Your task to perform on an android device: Open the stopwatch Image 0: 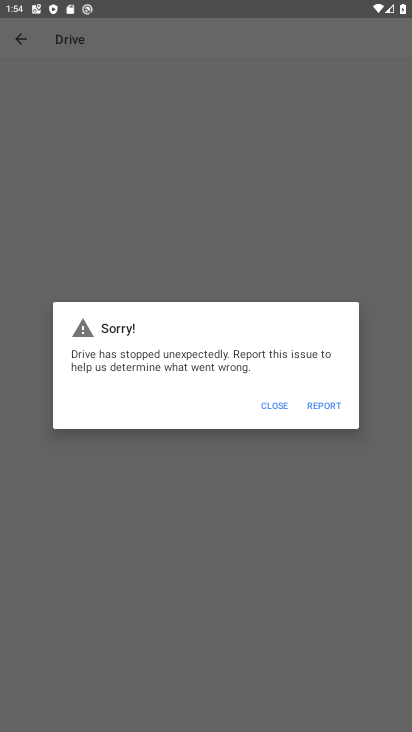
Step 0: press home button
Your task to perform on an android device: Open the stopwatch Image 1: 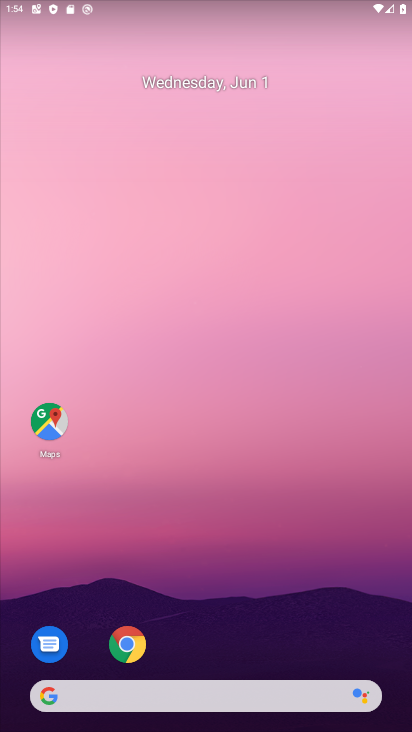
Step 1: drag from (198, 642) to (212, 210)
Your task to perform on an android device: Open the stopwatch Image 2: 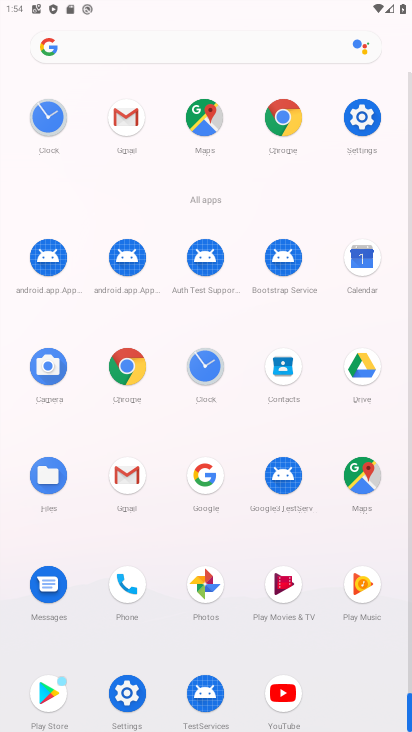
Step 2: click (204, 367)
Your task to perform on an android device: Open the stopwatch Image 3: 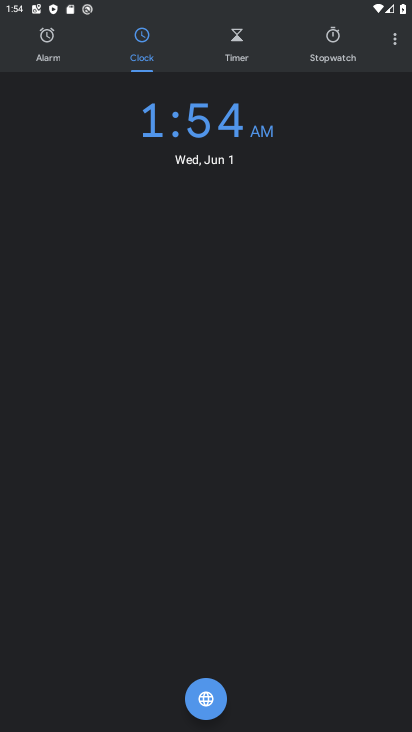
Step 3: click (339, 51)
Your task to perform on an android device: Open the stopwatch Image 4: 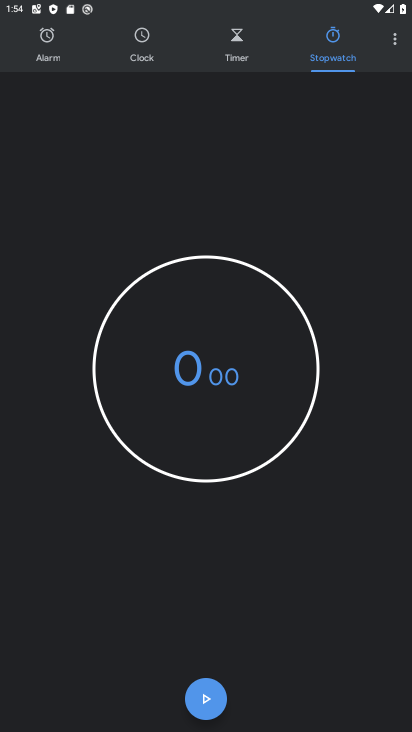
Step 4: task complete